Your task to perform on an android device: turn off improve location accuracy Image 0: 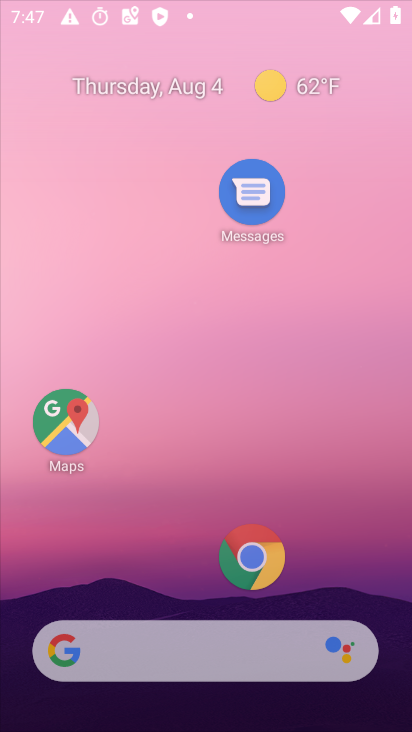
Step 0: press home button
Your task to perform on an android device: turn off improve location accuracy Image 1: 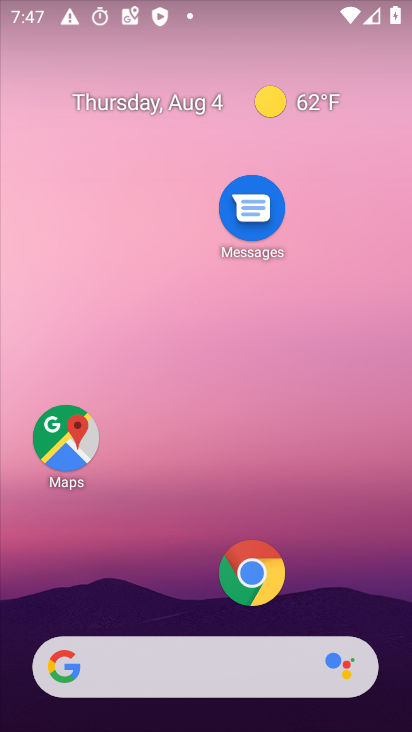
Step 1: drag from (155, 533) to (156, 167)
Your task to perform on an android device: turn off improve location accuracy Image 2: 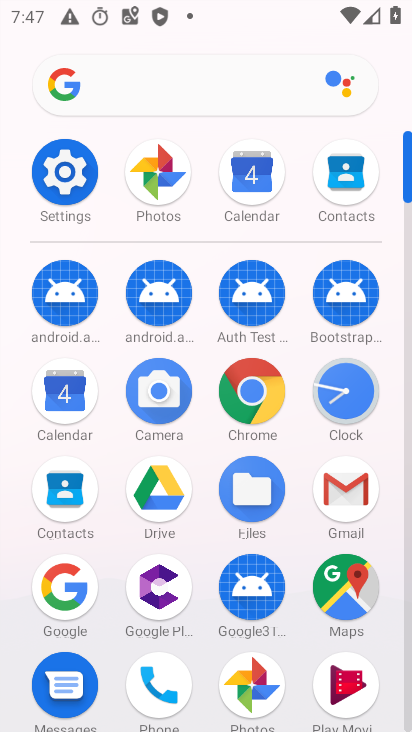
Step 2: click (71, 158)
Your task to perform on an android device: turn off improve location accuracy Image 3: 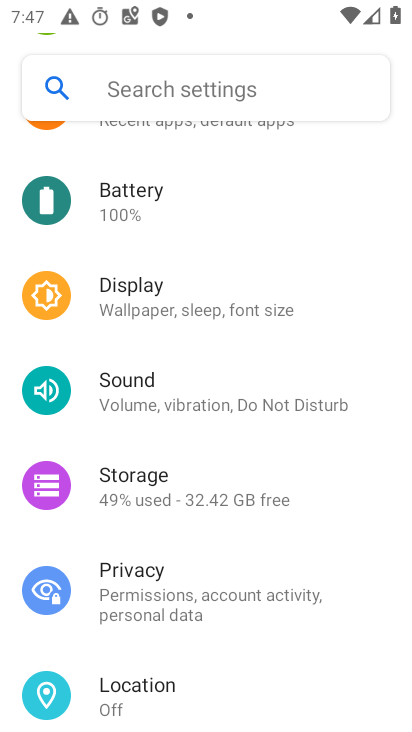
Step 3: click (131, 693)
Your task to perform on an android device: turn off improve location accuracy Image 4: 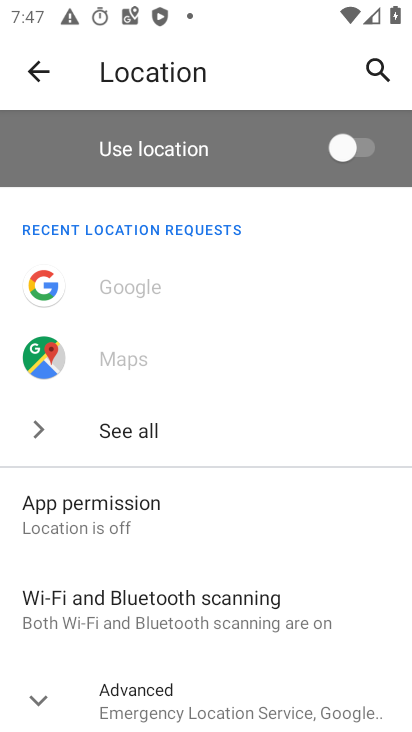
Step 4: click (166, 704)
Your task to perform on an android device: turn off improve location accuracy Image 5: 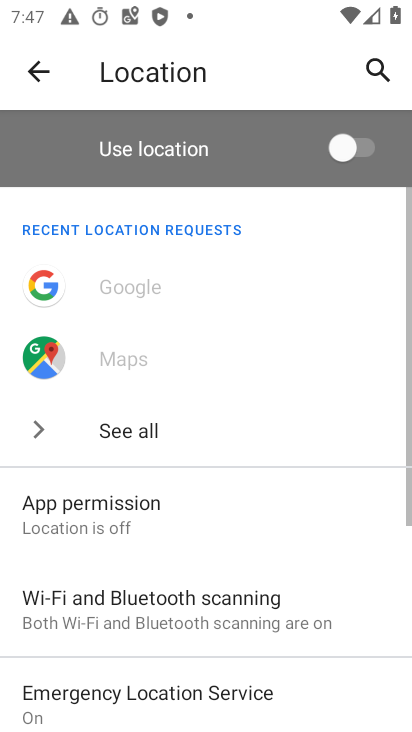
Step 5: drag from (355, 678) to (352, 151)
Your task to perform on an android device: turn off improve location accuracy Image 6: 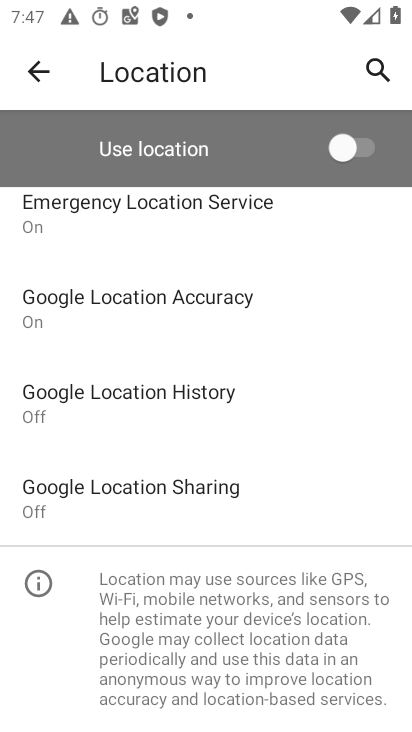
Step 6: click (158, 309)
Your task to perform on an android device: turn off improve location accuracy Image 7: 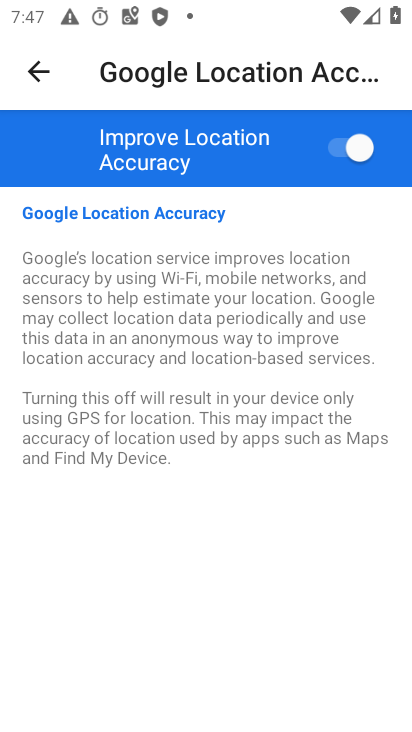
Step 7: click (353, 136)
Your task to perform on an android device: turn off improve location accuracy Image 8: 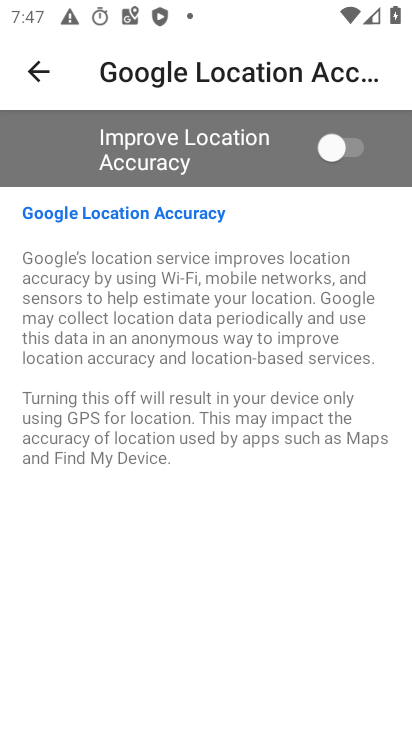
Step 8: task complete